Your task to perform on an android device: Open sound settings Image 0: 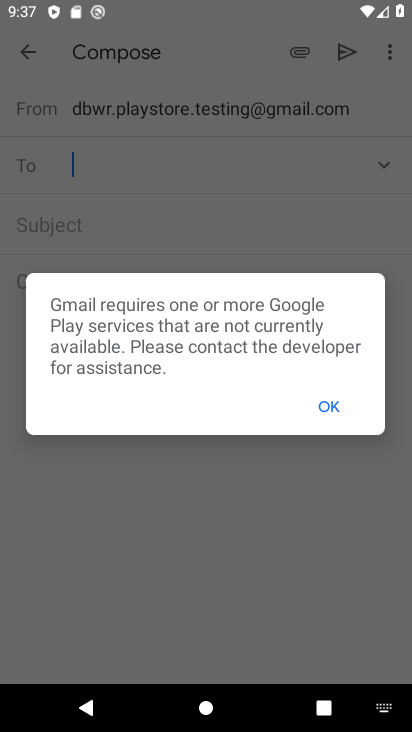
Step 0: press home button
Your task to perform on an android device: Open sound settings Image 1: 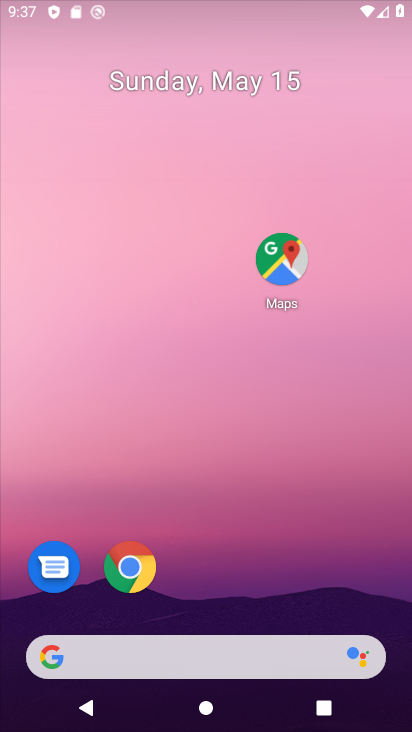
Step 1: drag from (225, 524) to (263, 88)
Your task to perform on an android device: Open sound settings Image 2: 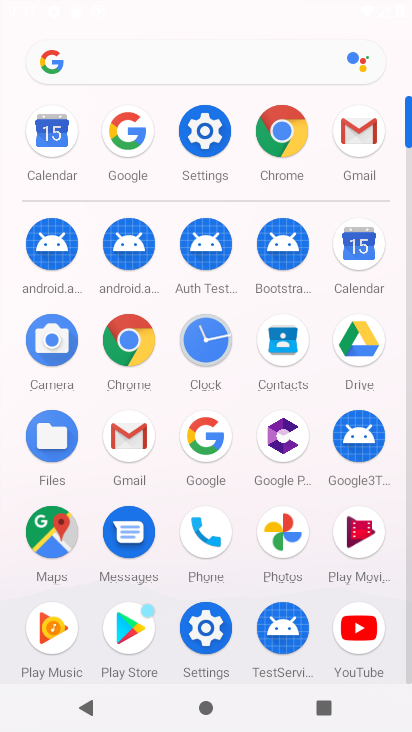
Step 2: click (211, 118)
Your task to perform on an android device: Open sound settings Image 3: 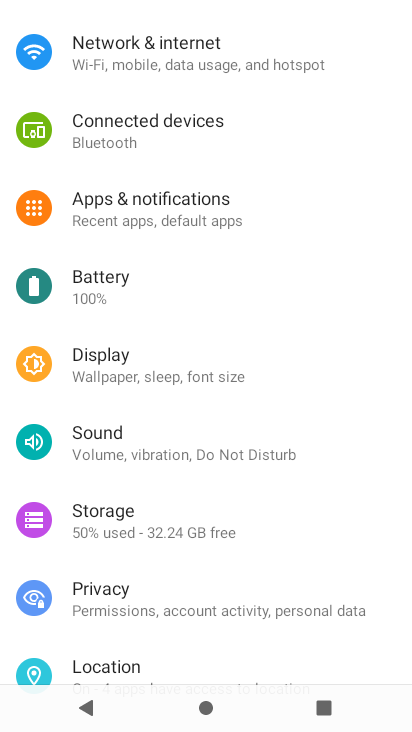
Step 3: click (118, 449)
Your task to perform on an android device: Open sound settings Image 4: 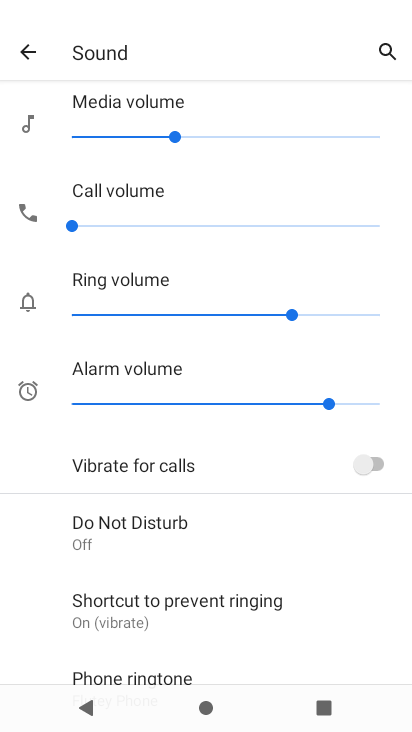
Step 4: task complete